Your task to perform on an android device: check the backup settings in the google photos Image 0: 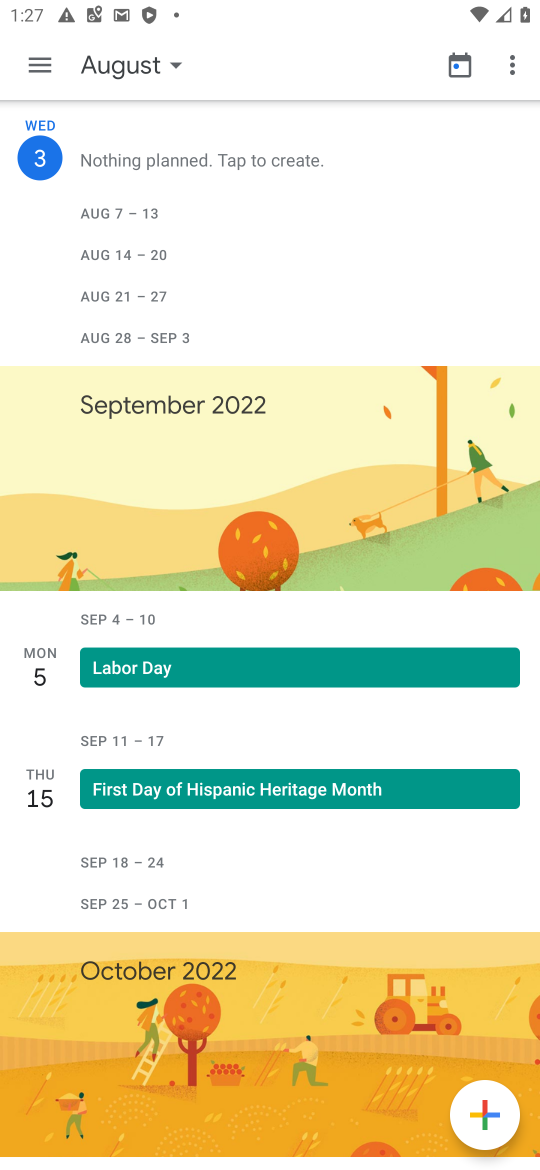
Step 0: press home button
Your task to perform on an android device: check the backup settings in the google photos Image 1: 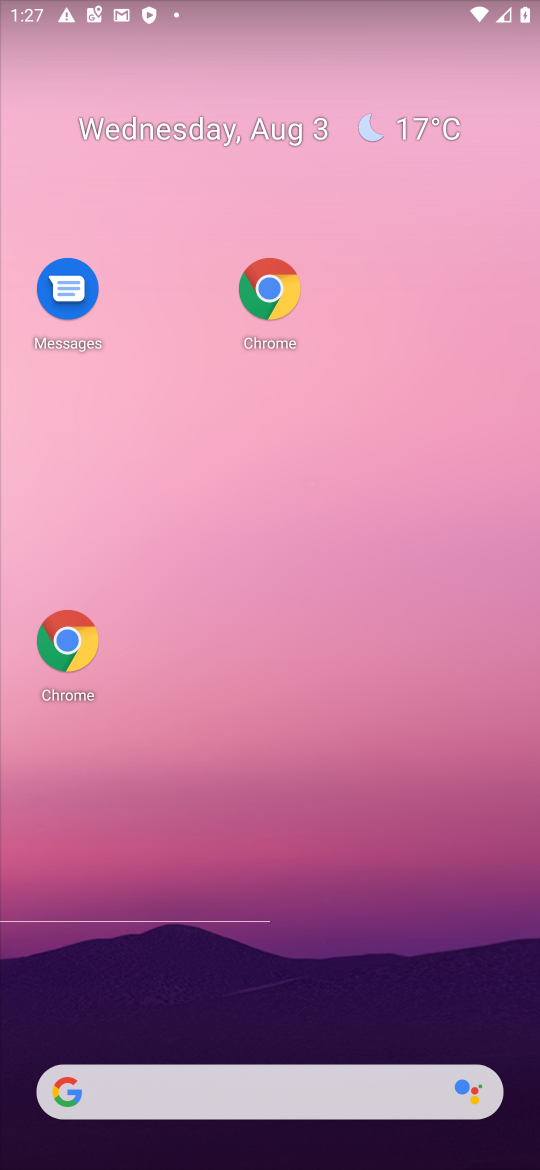
Step 1: drag from (309, 970) to (367, 159)
Your task to perform on an android device: check the backup settings in the google photos Image 2: 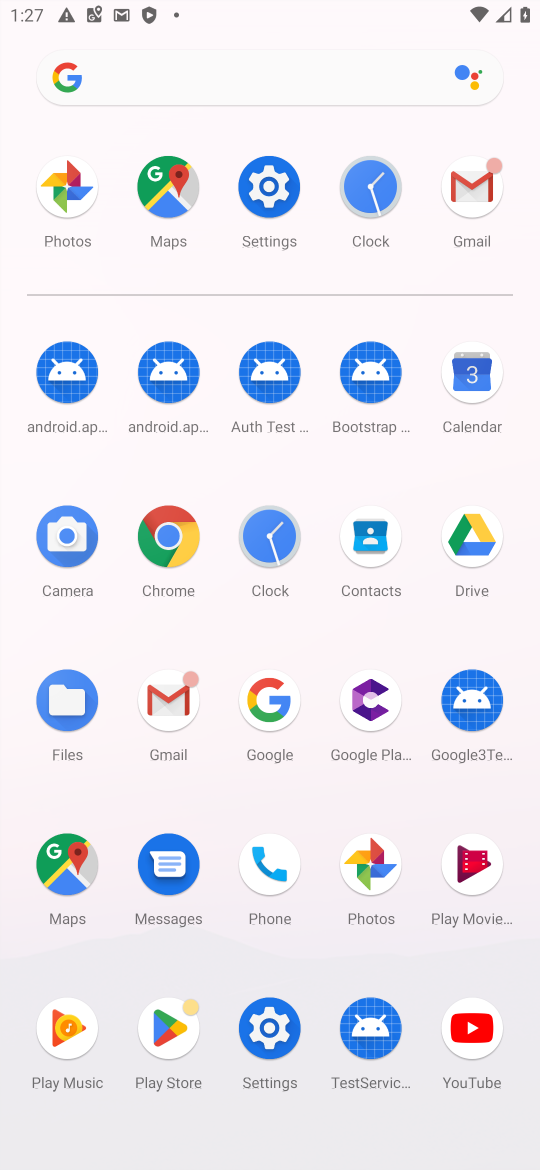
Step 2: click (297, 216)
Your task to perform on an android device: check the backup settings in the google photos Image 3: 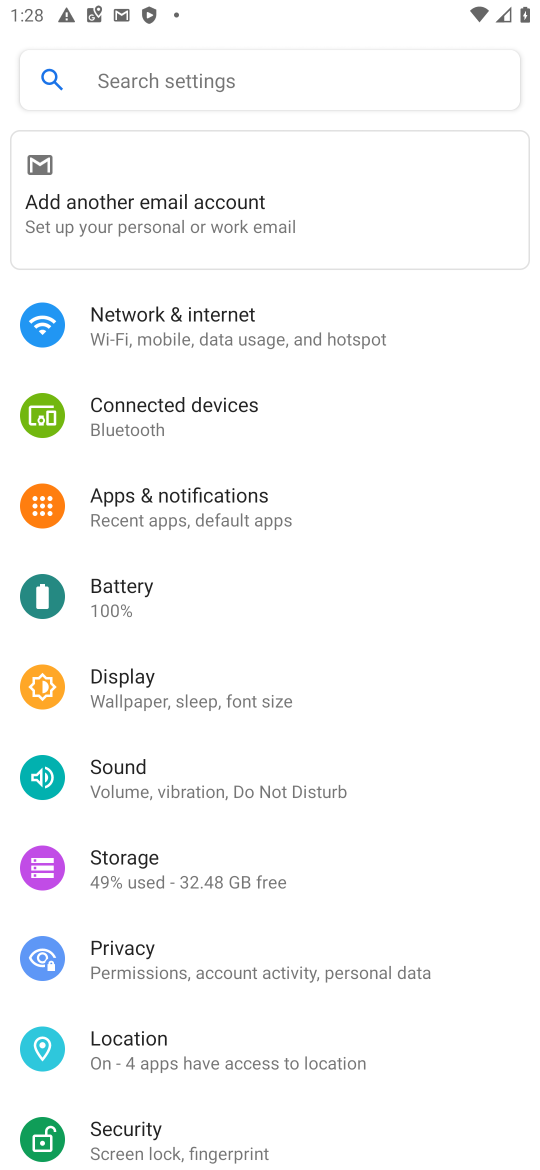
Step 3: task complete